Your task to perform on an android device: open app "Pluto TV - Live TV and Movies" (install if not already installed), go to login, and select forgot password Image 0: 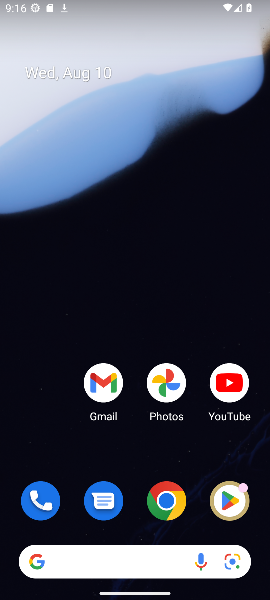
Step 0: click (225, 517)
Your task to perform on an android device: open app "Pluto TV - Live TV and Movies" (install if not already installed), go to login, and select forgot password Image 1: 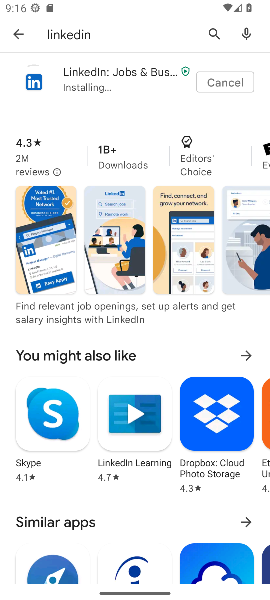
Step 1: click (212, 30)
Your task to perform on an android device: open app "Pluto TV - Live TV and Movies" (install if not already installed), go to login, and select forgot password Image 2: 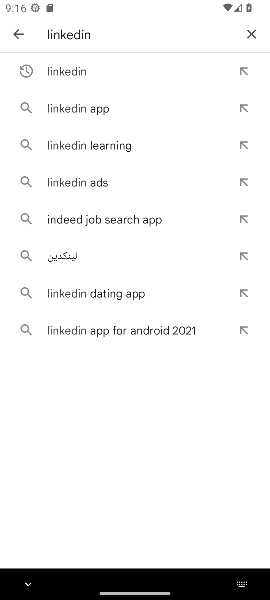
Step 2: click (238, 33)
Your task to perform on an android device: open app "Pluto TV - Live TV and Movies" (install if not already installed), go to login, and select forgot password Image 3: 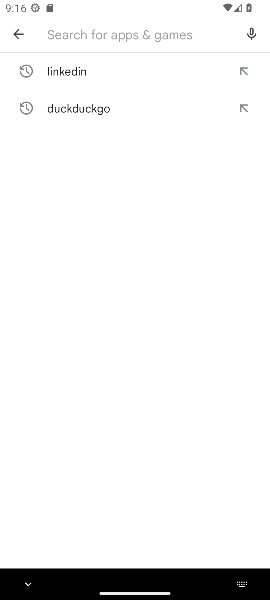
Step 3: type "pluto tv"
Your task to perform on an android device: open app "Pluto TV - Live TV and Movies" (install if not already installed), go to login, and select forgot password Image 4: 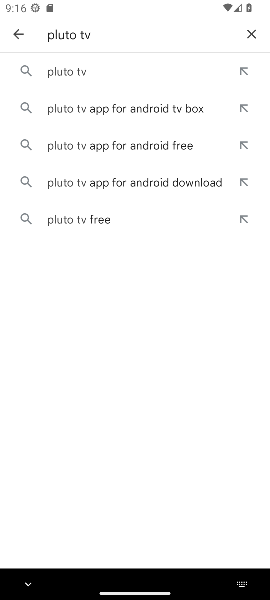
Step 4: click (111, 79)
Your task to perform on an android device: open app "Pluto TV - Live TV and Movies" (install if not already installed), go to login, and select forgot password Image 5: 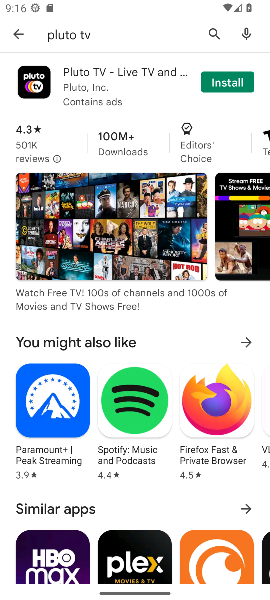
Step 5: click (207, 78)
Your task to perform on an android device: open app "Pluto TV - Live TV and Movies" (install if not already installed), go to login, and select forgot password Image 6: 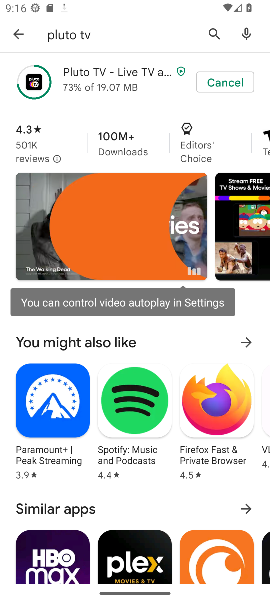
Step 6: task complete